Your task to perform on an android device: snooze an email in the gmail app Image 0: 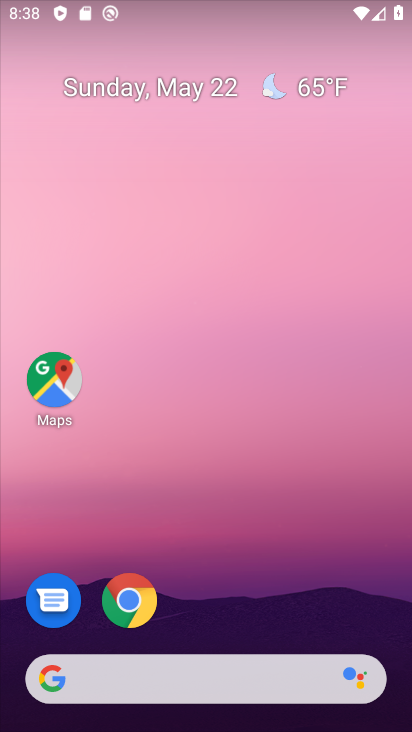
Step 0: drag from (238, 618) to (215, 186)
Your task to perform on an android device: snooze an email in the gmail app Image 1: 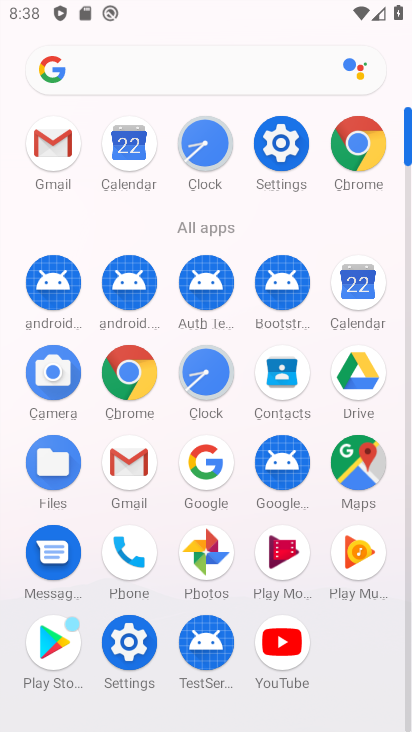
Step 1: click (41, 151)
Your task to perform on an android device: snooze an email in the gmail app Image 2: 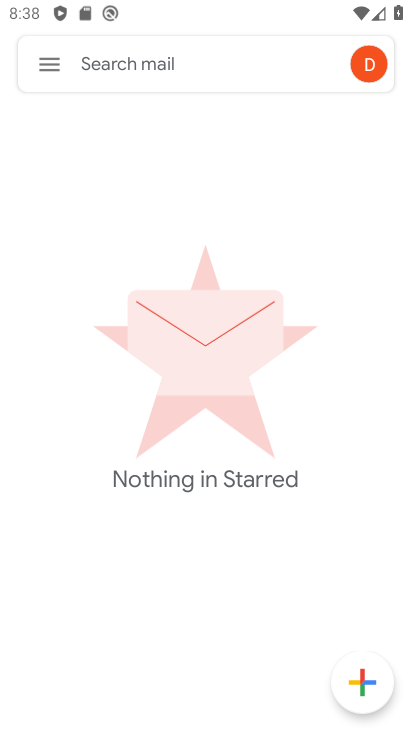
Step 2: click (50, 65)
Your task to perform on an android device: snooze an email in the gmail app Image 3: 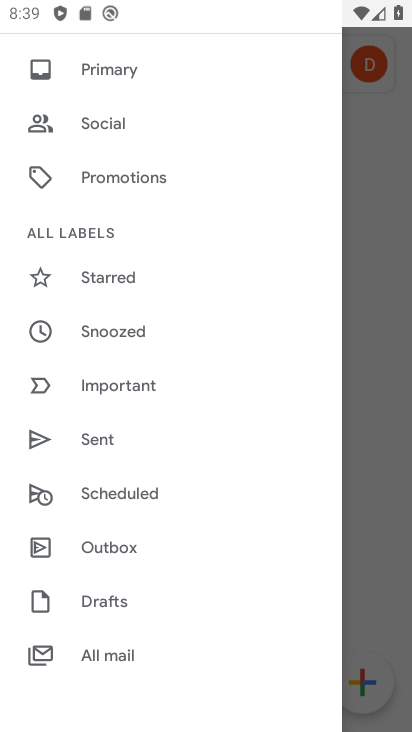
Step 3: drag from (234, 639) to (217, 412)
Your task to perform on an android device: snooze an email in the gmail app Image 4: 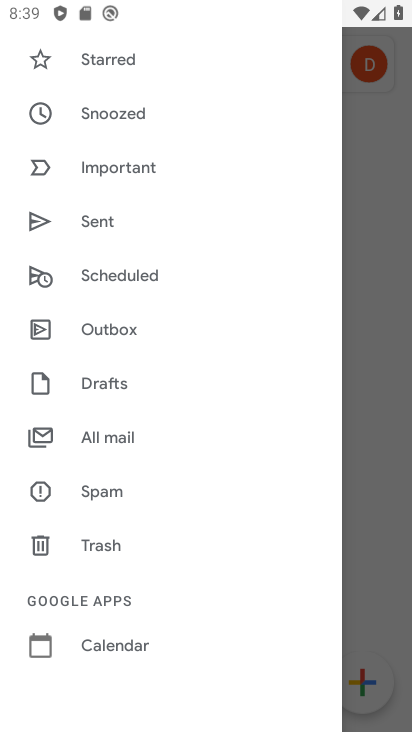
Step 4: click (134, 439)
Your task to perform on an android device: snooze an email in the gmail app Image 5: 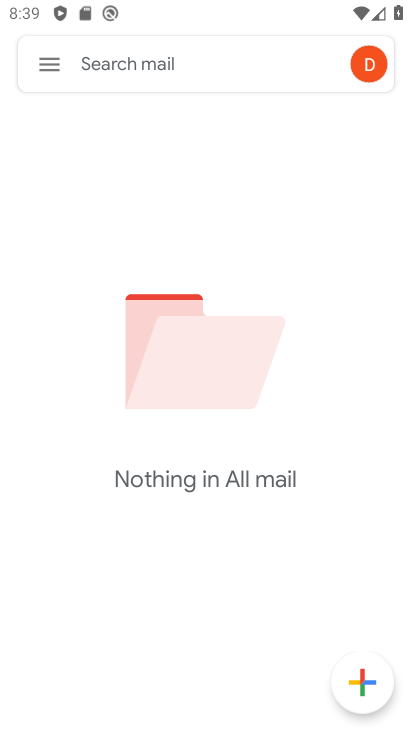
Step 5: task complete